Your task to perform on an android device: open wifi settings Image 0: 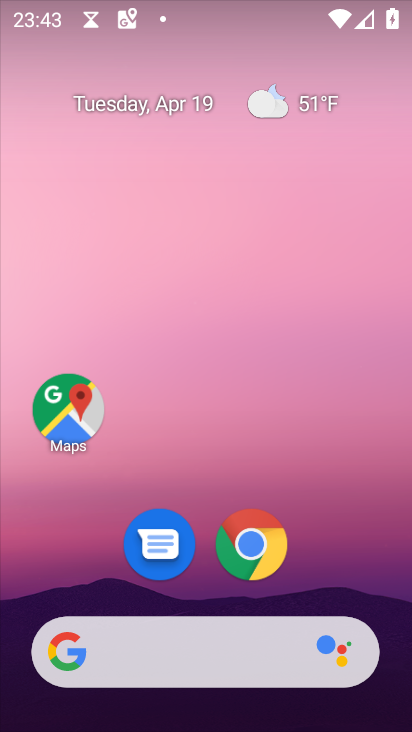
Step 0: drag from (338, 535) to (325, 42)
Your task to perform on an android device: open wifi settings Image 1: 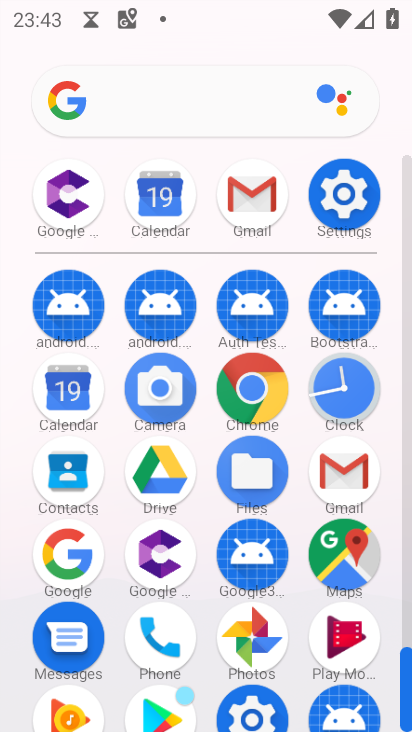
Step 1: click (341, 195)
Your task to perform on an android device: open wifi settings Image 2: 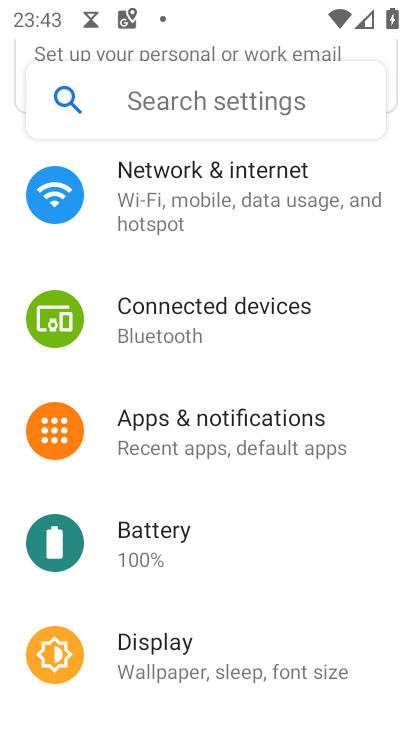
Step 2: click (163, 220)
Your task to perform on an android device: open wifi settings Image 3: 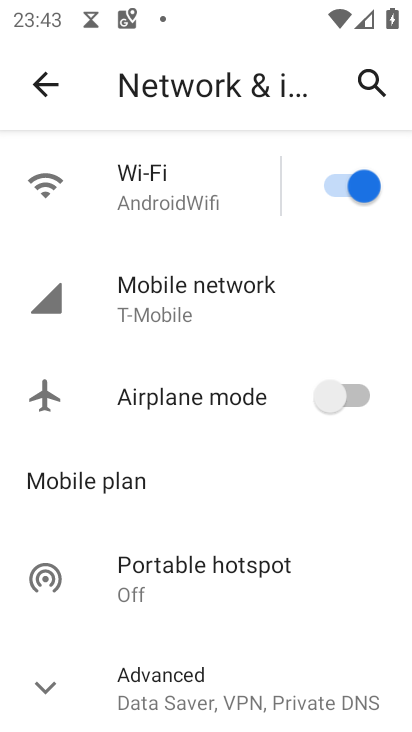
Step 3: click (158, 211)
Your task to perform on an android device: open wifi settings Image 4: 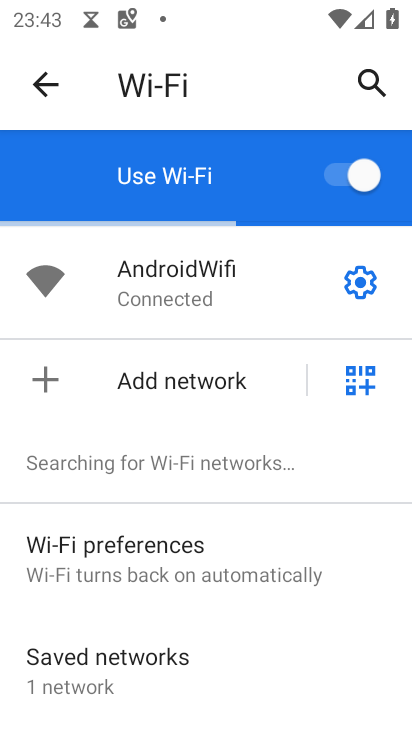
Step 4: task complete